Your task to perform on an android device: allow notifications from all sites in the chrome app Image 0: 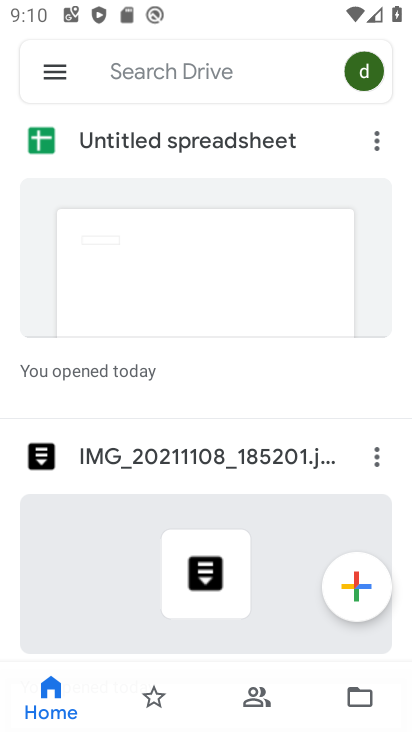
Step 0: press home button
Your task to perform on an android device: allow notifications from all sites in the chrome app Image 1: 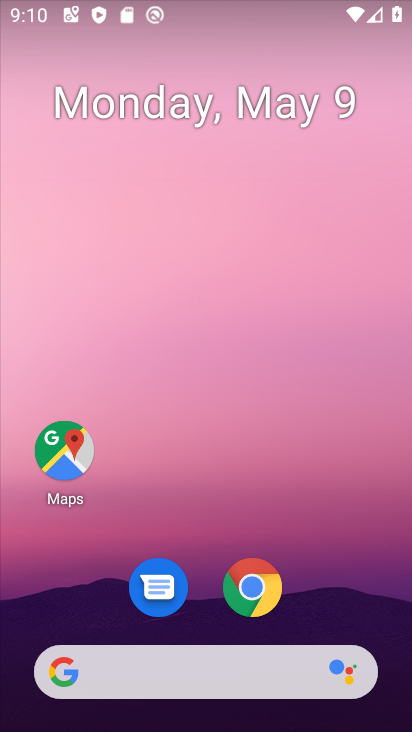
Step 1: click (253, 582)
Your task to perform on an android device: allow notifications from all sites in the chrome app Image 2: 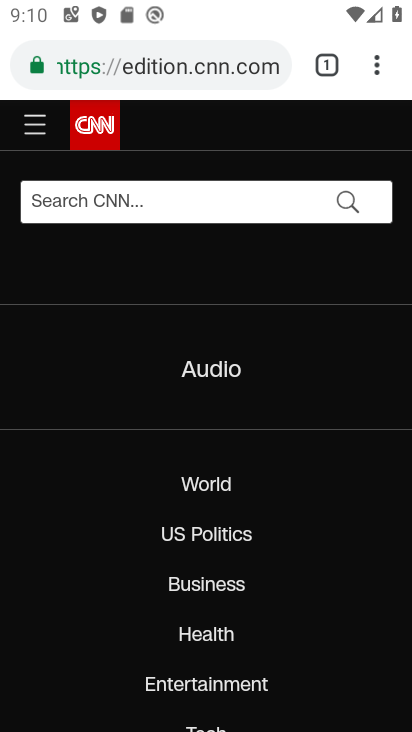
Step 2: click (385, 62)
Your task to perform on an android device: allow notifications from all sites in the chrome app Image 3: 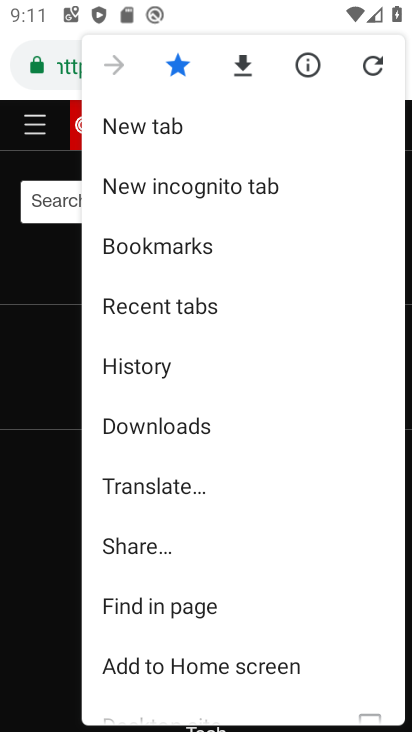
Step 3: drag from (174, 617) to (258, 259)
Your task to perform on an android device: allow notifications from all sites in the chrome app Image 4: 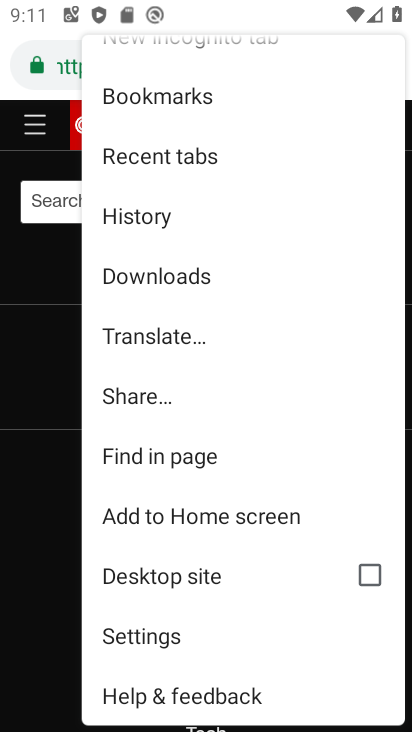
Step 4: click (137, 632)
Your task to perform on an android device: allow notifications from all sites in the chrome app Image 5: 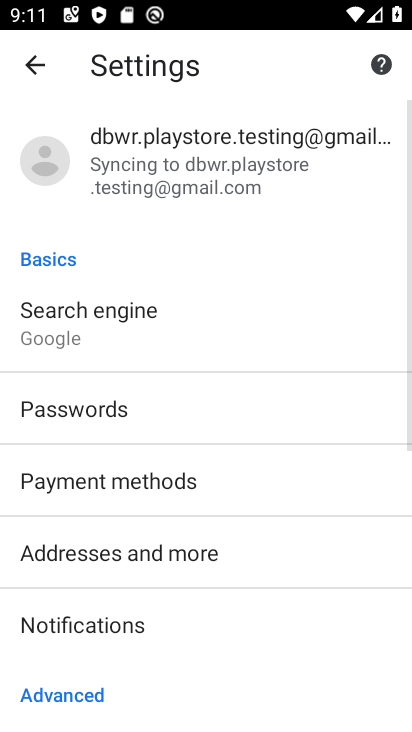
Step 5: drag from (137, 632) to (216, 151)
Your task to perform on an android device: allow notifications from all sites in the chrome app Image 6: 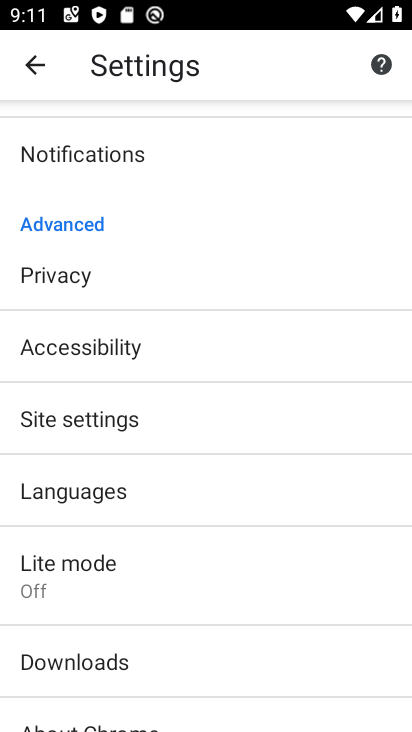
Step 6: click (218, 169)
Your task to perform on an android device: allow notifications from all sites in the chrome app Image 7: 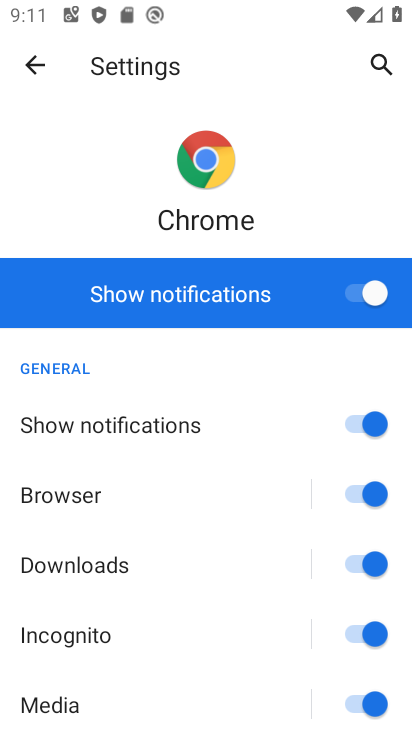
Step 7: drag from (91, 612) to (242, 150)
Your task to perform on an android device: allow notifications from all sites in the chrome app Image 8: 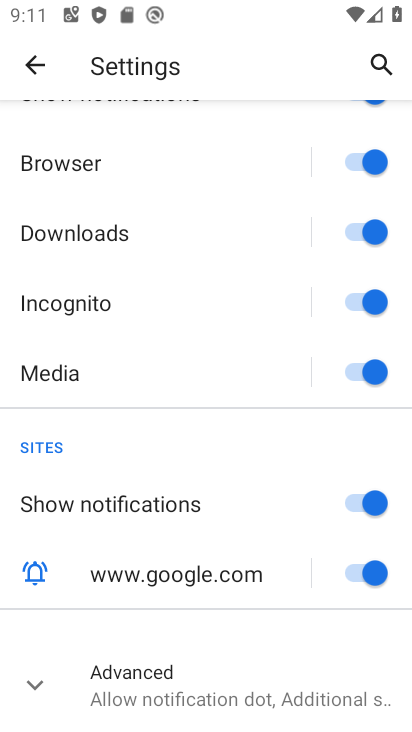
Step 8: click (189, 508)
Your task to perform on an android device: allow notifications from all sites in the chrome app Image 9: 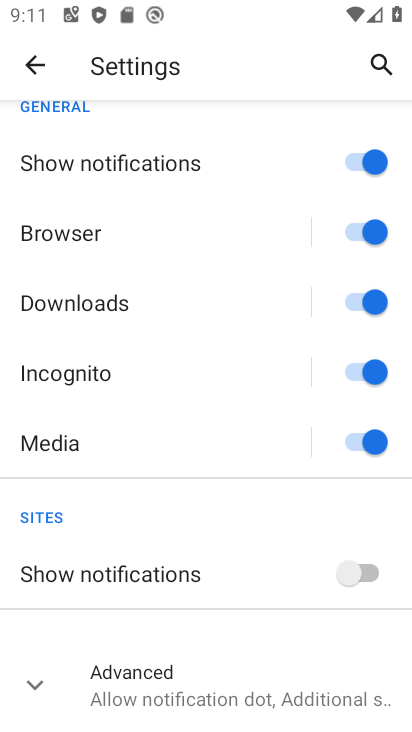
Step 9: click (360, 580)
Your task to perform on an android device: allow notifications from all sites in the chrome app Image 10: 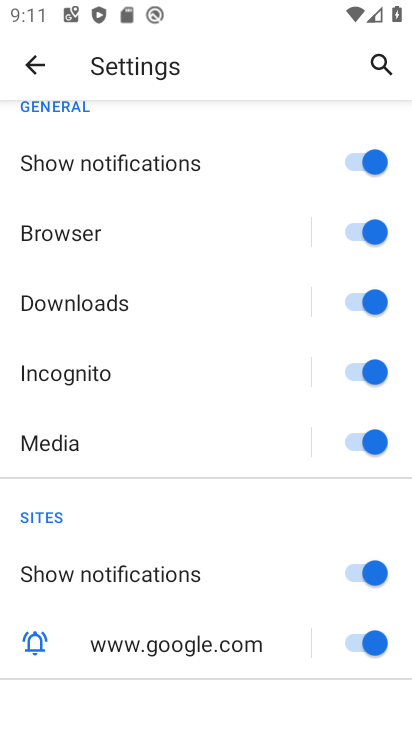
Step 10: task complete